Your task to perform on an android device: search for starred emails in the gmail app Image 0: 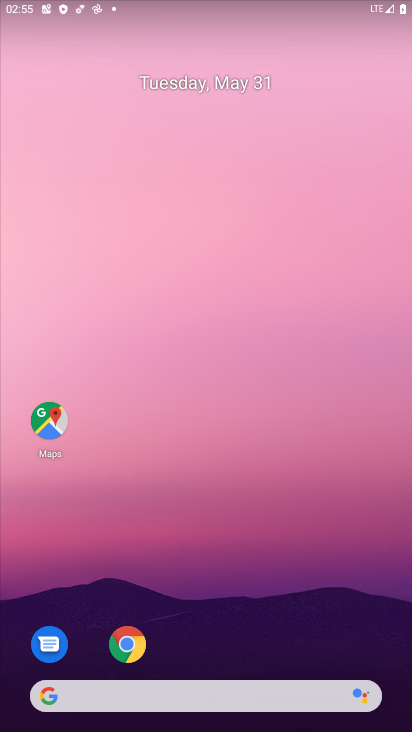
Step 0: drag from (254, 511) to (220, 135)
Your task to perform on an android device: search for starred emails in the gmail app Image 1: 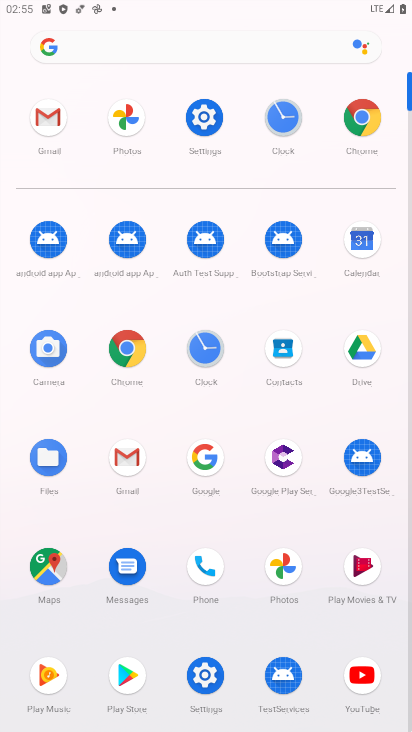
Step 1: click (124, 458)
Your task to perform on an android device: search for starred emails in the gmail app Image 2: 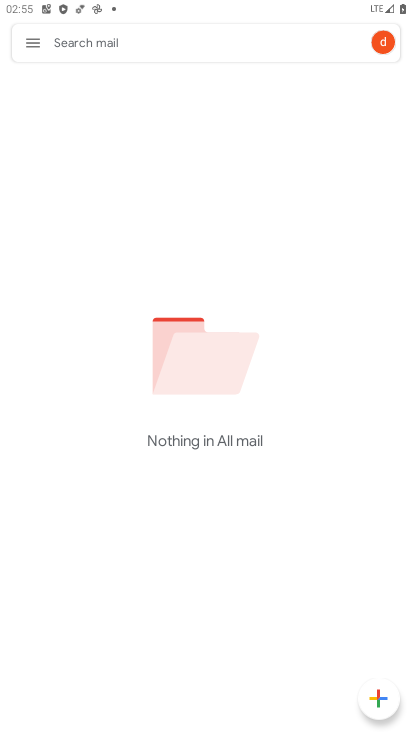
Step 2: click (31, 54)
Your task to perform on an android device: search for starred emails in the gmail app Image 3: 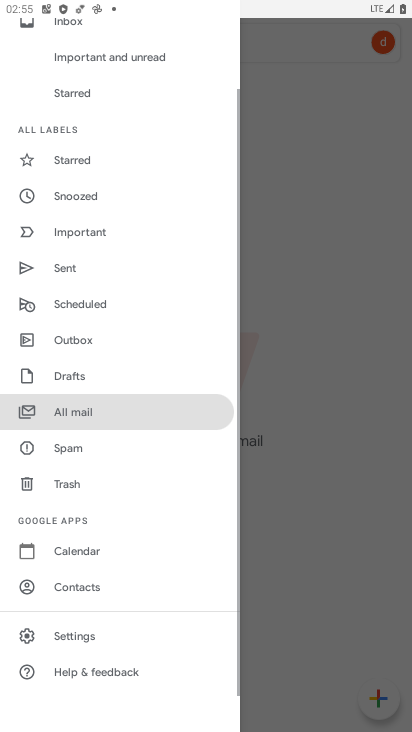
Step 3: click (80, 161)
Your task to perform on an android device: search for starred emails in the gmail app Image 4: 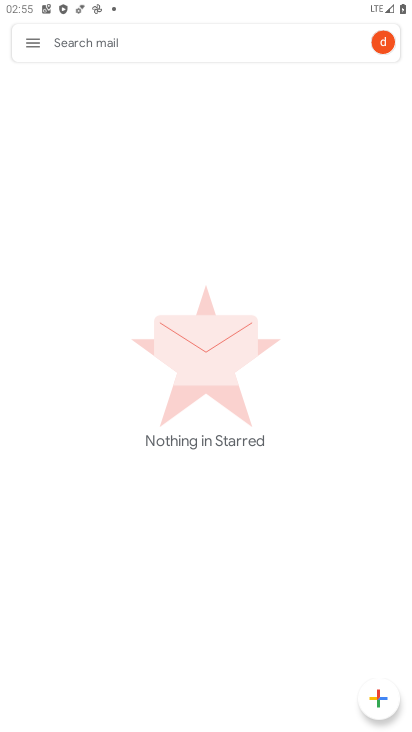
Step 4: task complete